Your task to perform on an android device: Go to privacy settings Image 0: 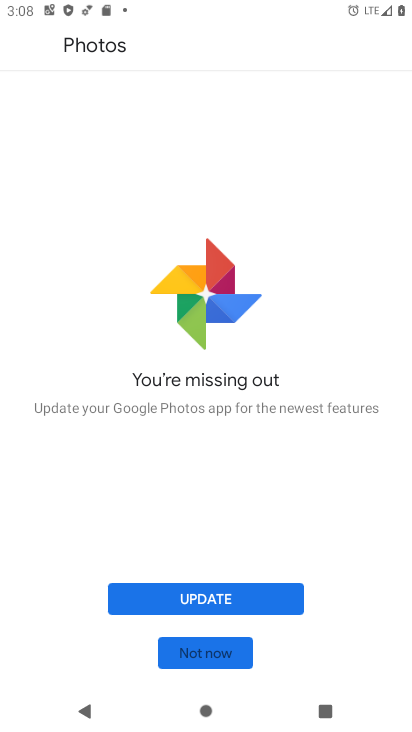
Step 0: press back button
Your task to perform on an android device: Go to privacy settings Image 1: 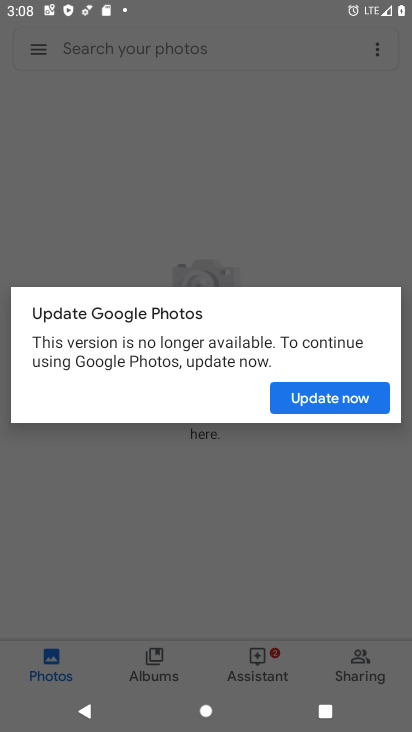
Step 1: press back button
Your task to perform on an android device: Go to privacy settings Image 2: 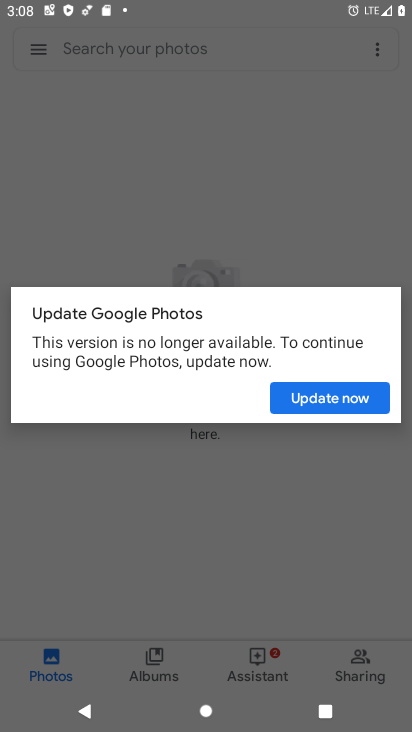
Step 2: press back button
Your task to perform on an android device: Go to privacy settings Image 3: 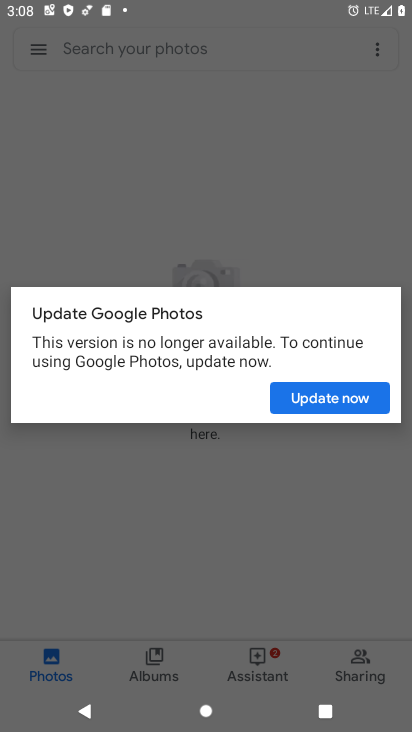
Step 3: press home button
Your task to perform on an android device: Go to privacy settings Image 4: 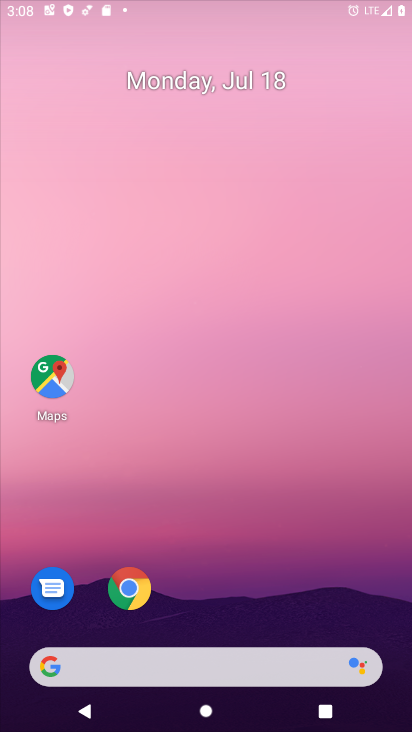
Step 4: drag from (200, 615) to (317, 24)
Your task to perform on an android device: Go to privacy settings Image 5: 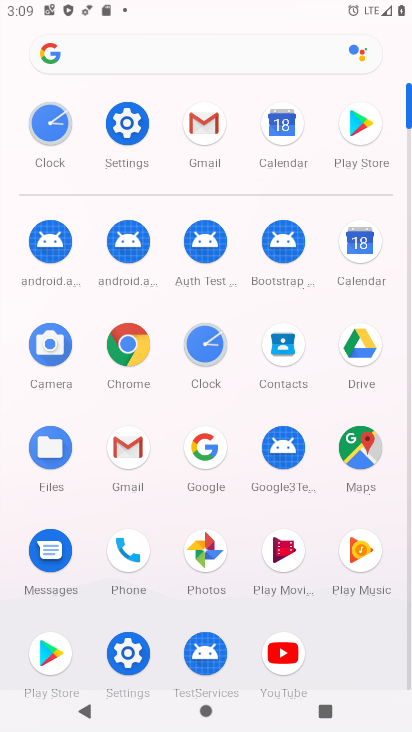
Step 5: click (125, 128)
Your task to perform on an android device: Go to privacy settings Image 6: 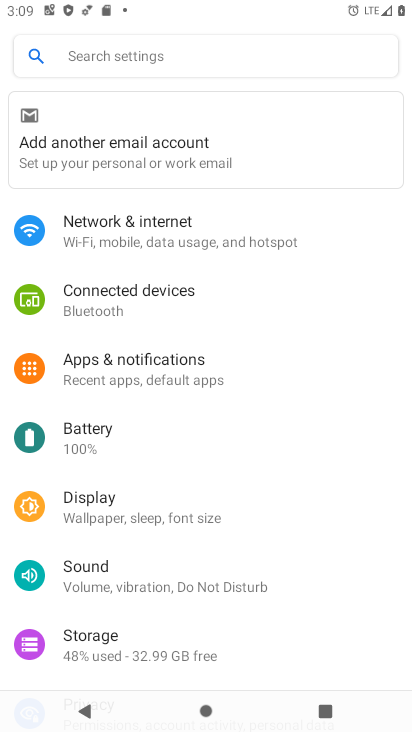
Step 6: drag from (126, 630) to (223, 137)
Your task to perform on an android device: Go to privacy settings Image 7: 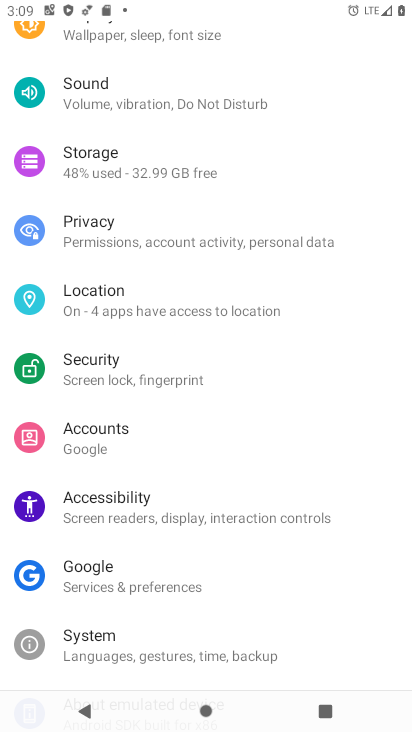
Step 7: click (119, 232)
Your task to perform on an android device: Go to privacy settings Image 8: 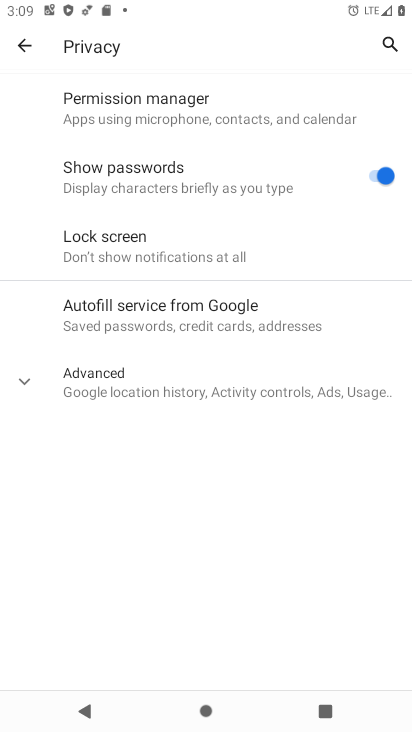
Step 8: task complete